Your task to perform on an android device: change alarm snooze length Image 0: 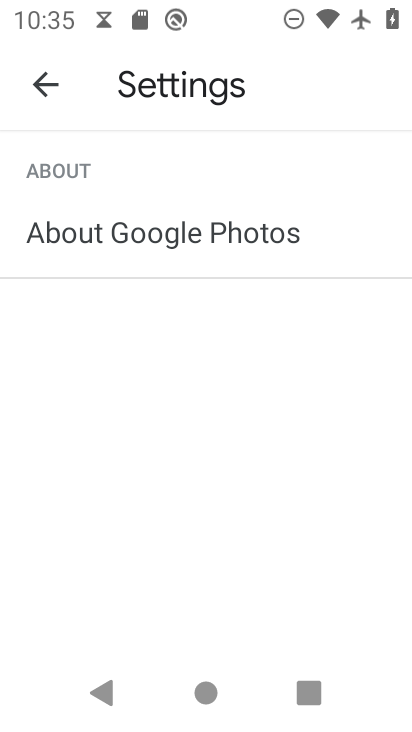
Step 0: press back button
Your task to perform on an android device: change alarm snooze length Image 1: 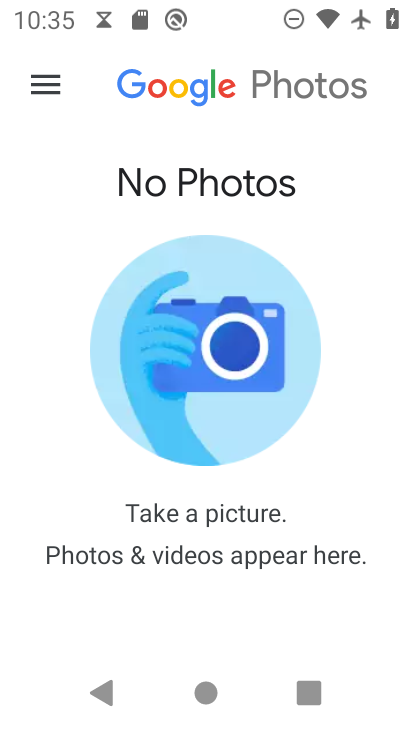
Step 1: press home button
Your task to perform on an android device: change alarm snooze length Image 2: 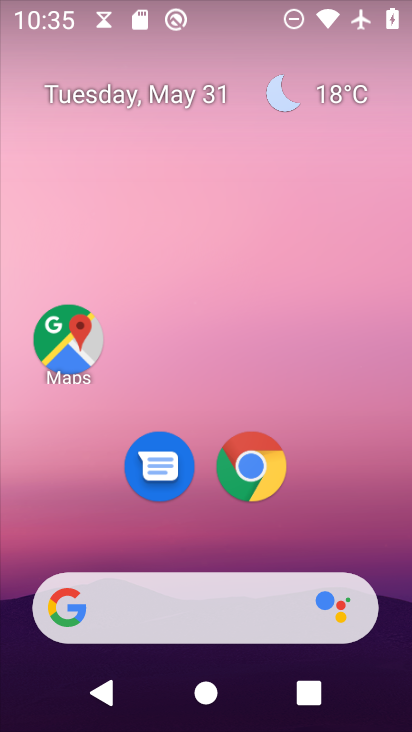
Step 2: drag from (362, 480) to (277, 22)
Your task to perform on an android device: change alarm snooze length Image 3: 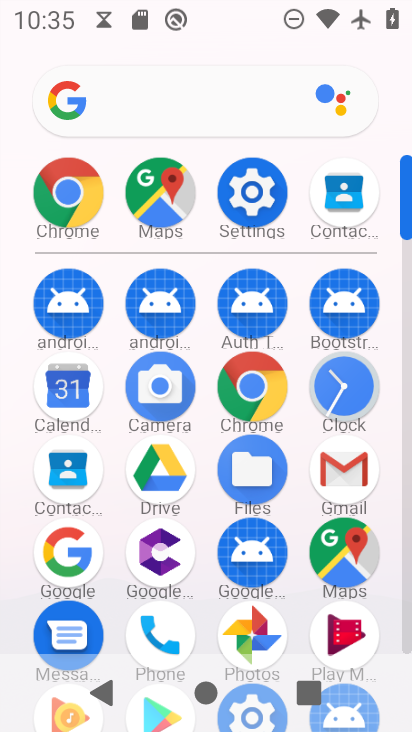
Step 3: drag from (14, 524) to (30, 158)
Your task to perform on an android device: change alarm snooze length Image 4: 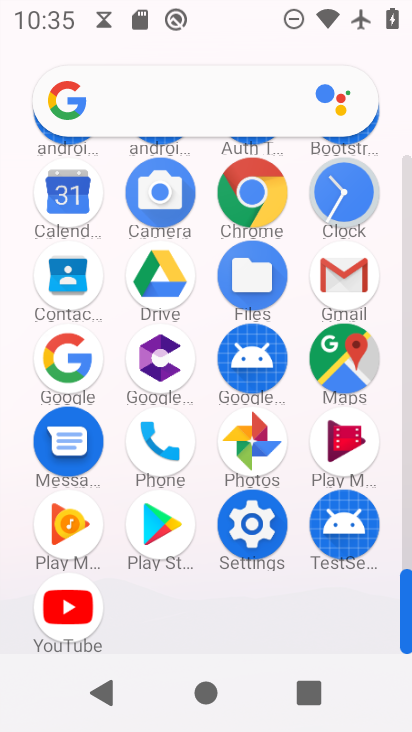
Step 4: drag from (11, 436) to (10, 127)
Your task to perform on an android device: change alarm snooze length Image 5: 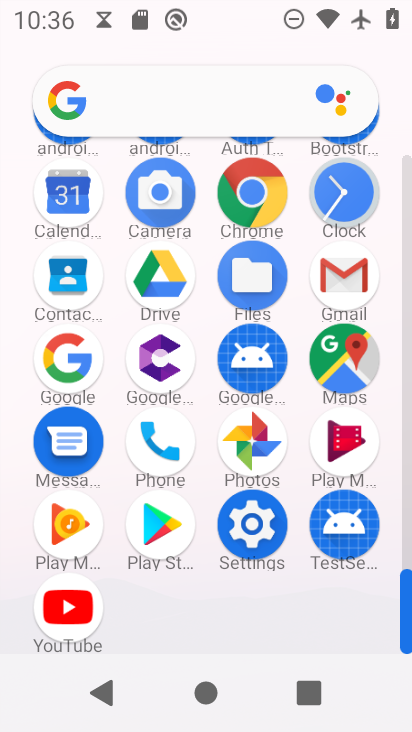
Step 5: click (349, 186)
Your task to perform on an android device: change alarm snooze length Image 6: 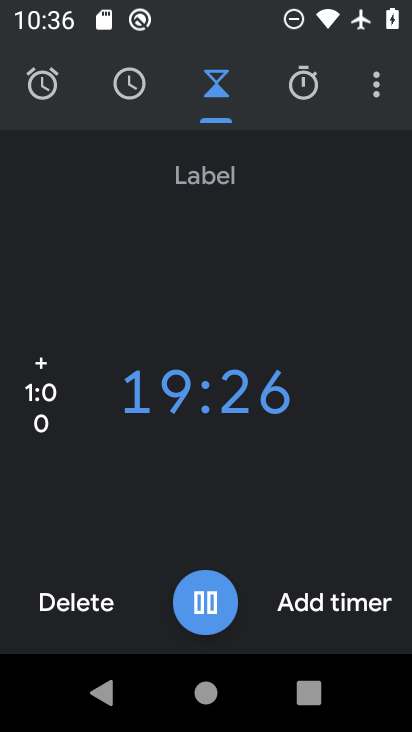
Step 6: drag from (375, 84) to (279, 143)
Your task to perform on an android device: change alarm snooze length Image 7: 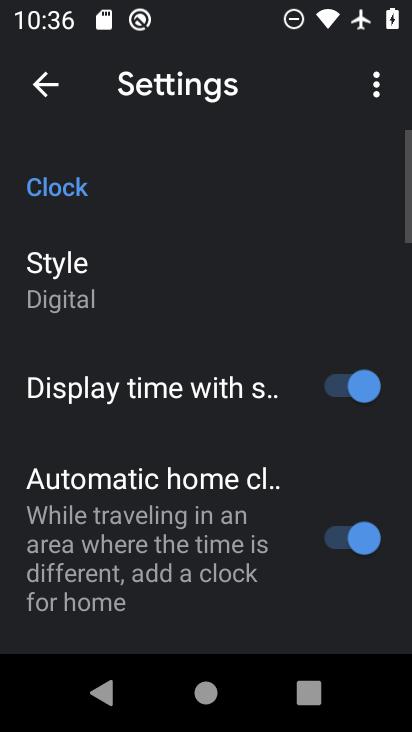
Step 7: drag from (165, 582) to (160, 163)
Your task to perform on an android device: change alarm snooze length Image 8: 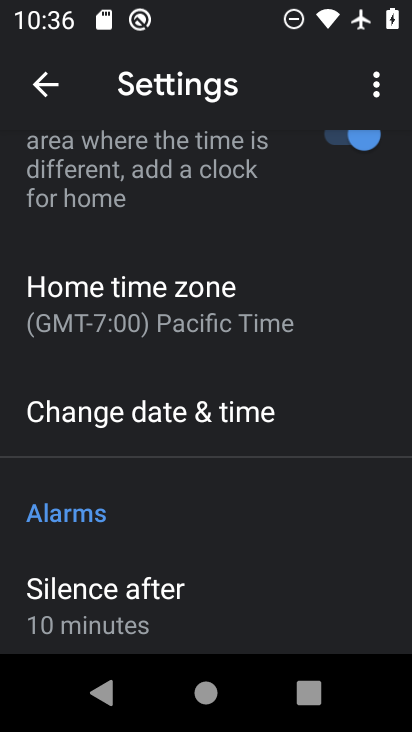
Step 8: drag from (186, 526) to (179, 202)
Your task to perform on an android device: change alarm snooze length Image 9: 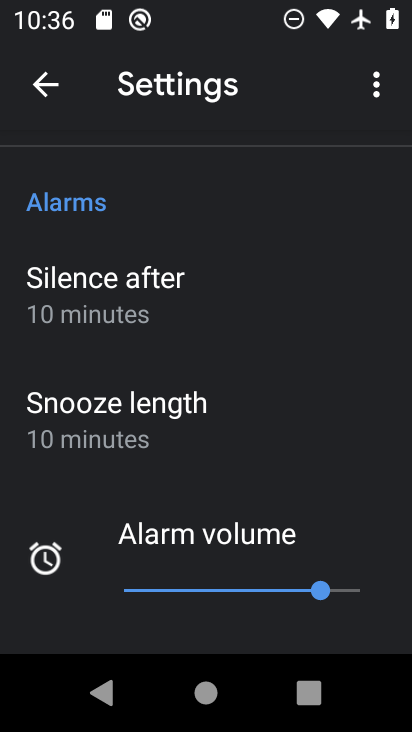
Step 9: click (169, 420)
Your task to perform on an android device: change alarm snooze length Image 10: 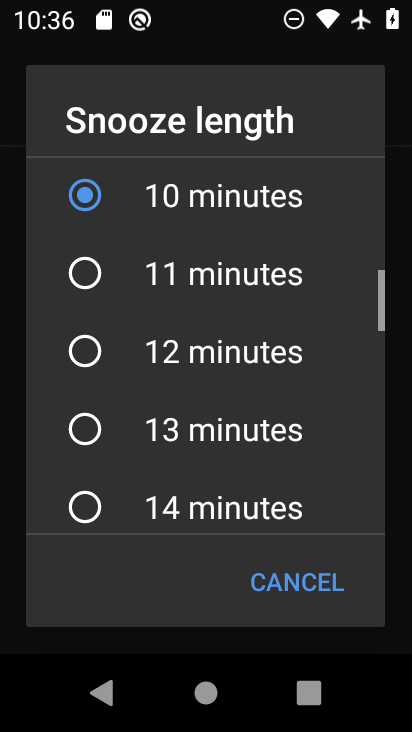
Step 10: click (169, 275)
Your task to perform on an android device: change alarm snooze length Image 11: 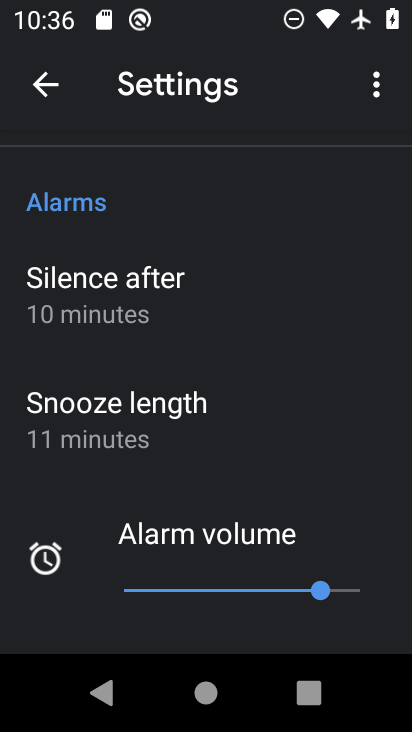
Step 11: task complete